Your task to perform on an android device: Open maps Image 0: 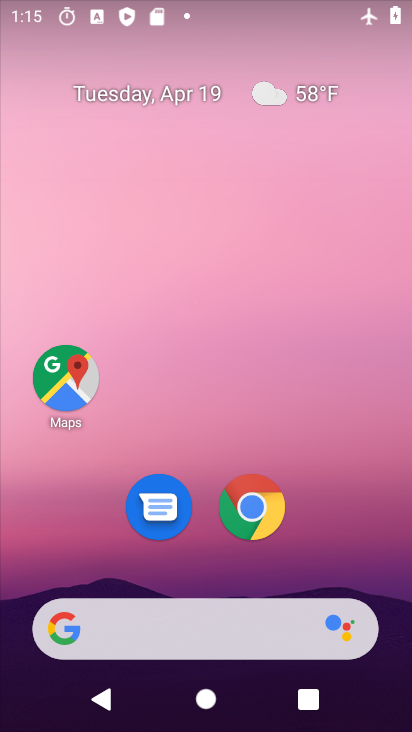
Step 0: click (62, 386)
Your task to perform on an android device: Open maps Image 1: 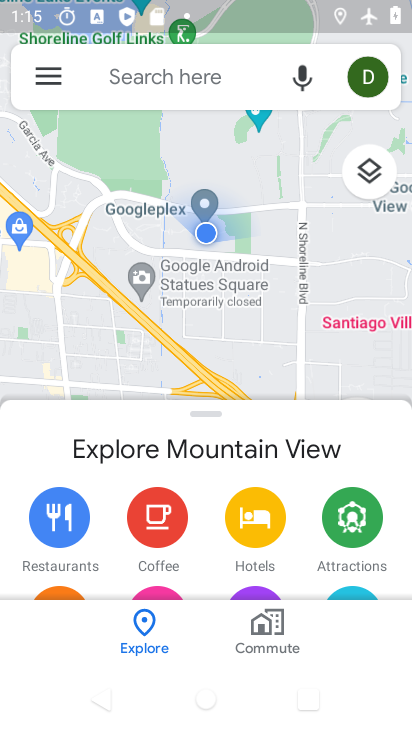
Step 1: task complete